Your task to perform on an android device: stop showing notifications on the lock screen Image 0: 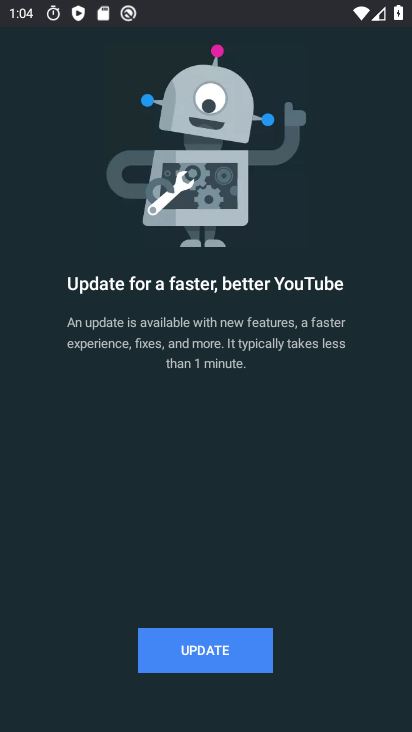
Step 0: press home button
Your task to perform on an android device: stop showing notifications on the lock screen Image 1: 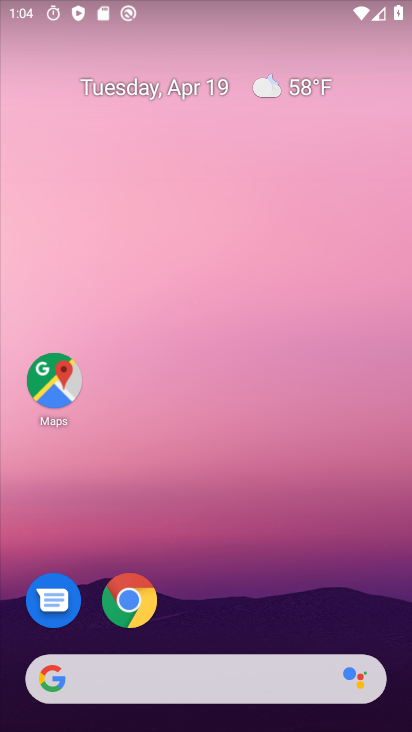
Step 1: drag from (265, 701) to (298, 271)
Your task to perform on an android device: stop showing notifications on the lock screen Image 2: 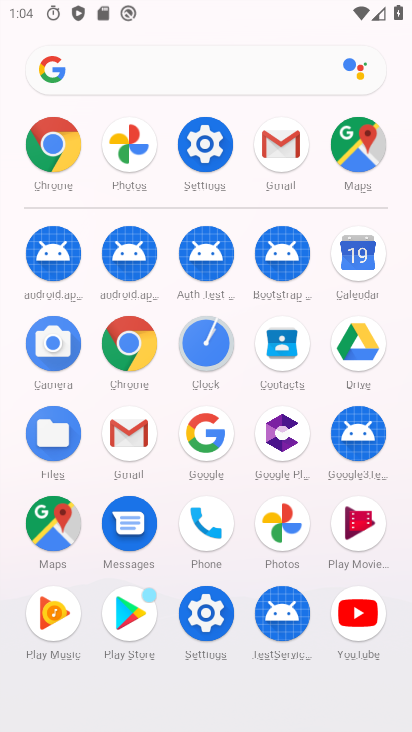
Step 2: click (207, 606)
Your task to perform on an android device: stop showing notifications on the lock screen Image 3: 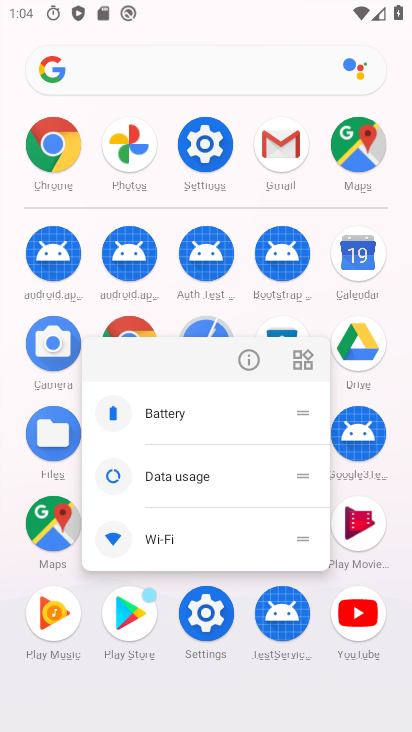
Step 3: click (201, 611)
Your task to perform on an android device: stop showing notifications on the lock screen Image 4: 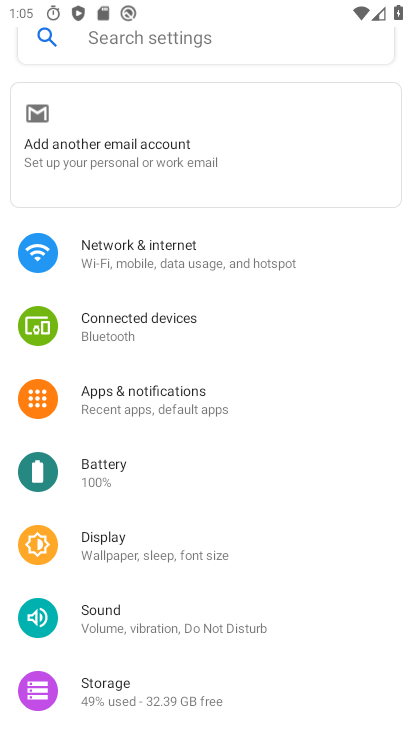
Step 4: click (172, 36)
Your task to perform on an android device: stop showing notifications on the lock screen Image 5: 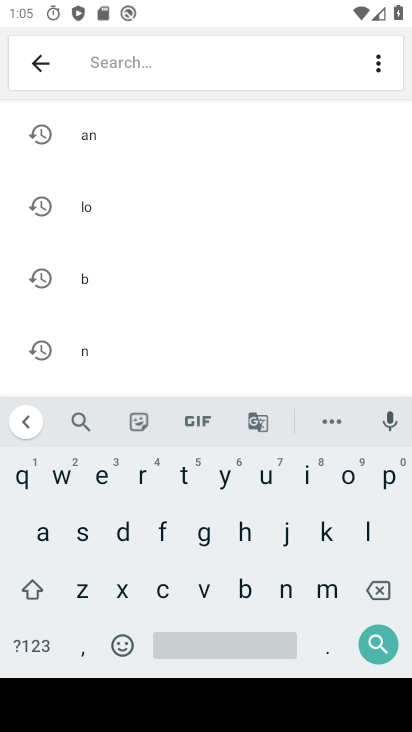
Step 5: click (113, 202)
Your task to perform on an android device: stop showing notifications on the lock screen Image 6: 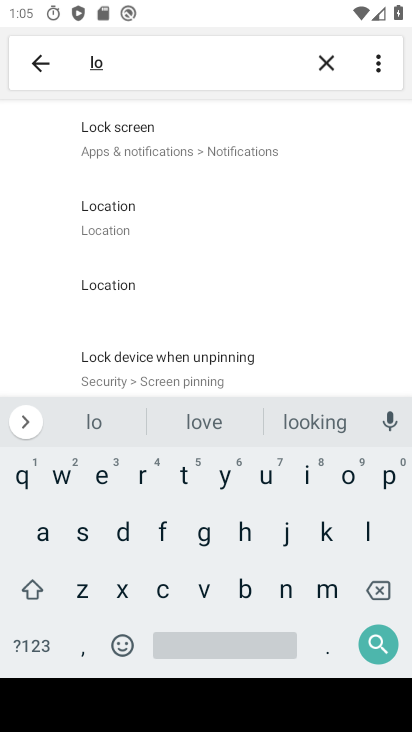
Step 6: click (145, 153)
Your task to perform on an android device: stop showing notifications on the lock screen Image 7: 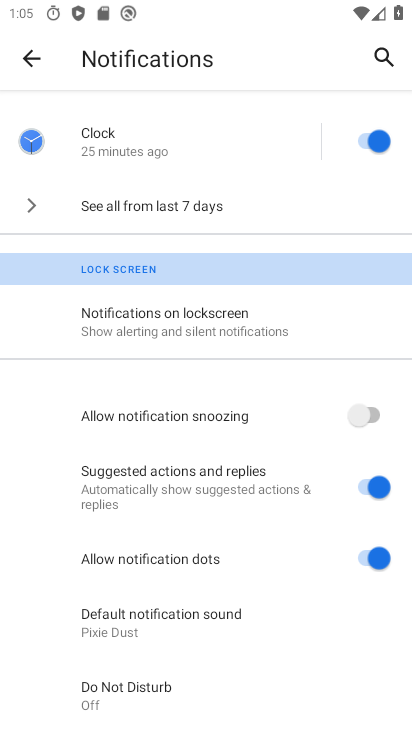
Step 7: click (149, 318)
Your task to perform on an android device: stop showing notifications on the lock screen Image 8: 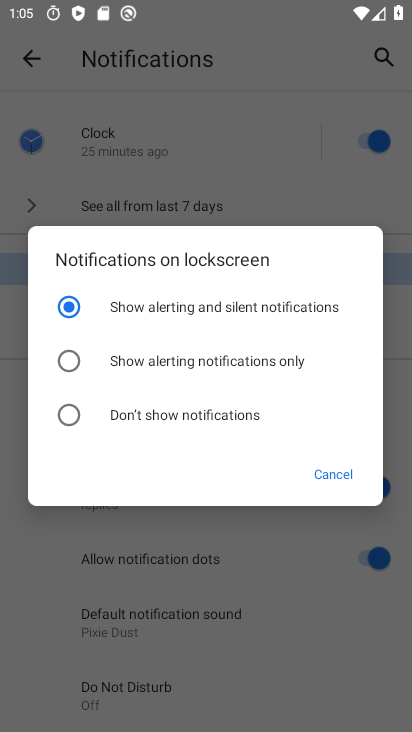
Step 8: click (145, 421)
Your task to perform on an android device: stop showing notifications on the lock screen Image 9: 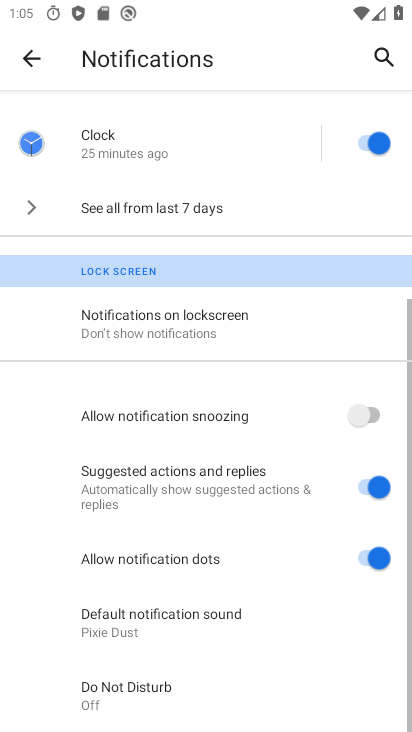
Step 9: task complete